Your task to perform on an android device: find which apps use the phone's location Image 0: 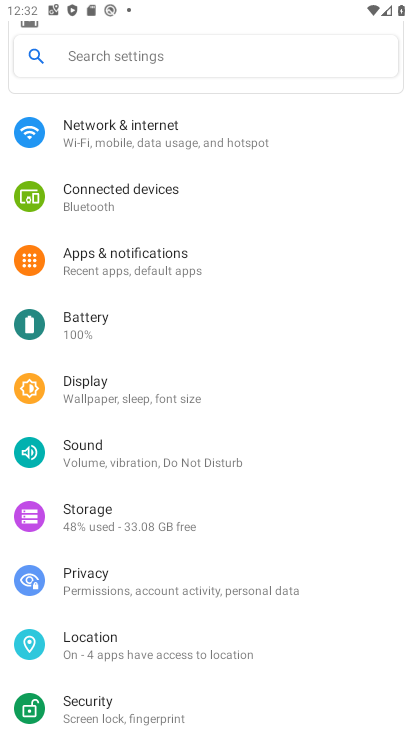
Step 0: click (123, 647)
Your task to perform on an android device: find which apps use the phone's location Image 1: 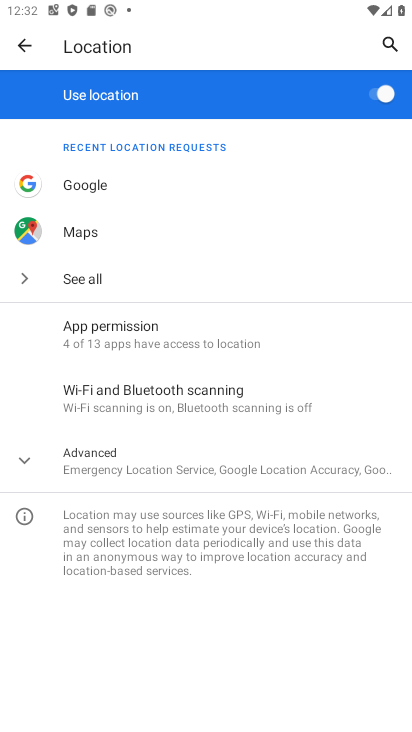
Step 1: click (149, 330)
Your task to perform on an android device: find which apps use the phone's location Image 2: 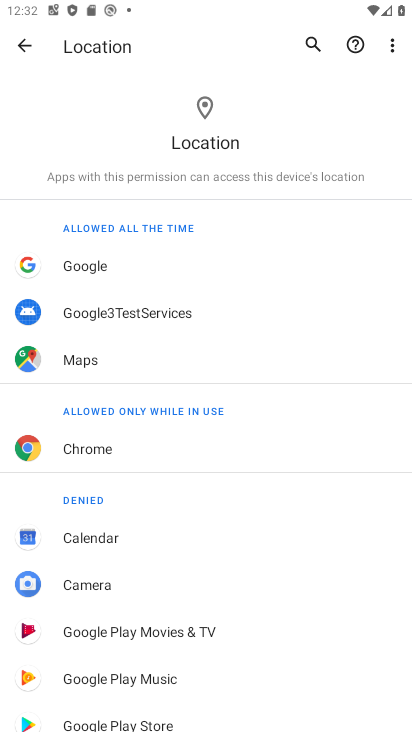
Step 2: task complete